Your task to perform on an android device: What is the speed of a rocket? Image 0: 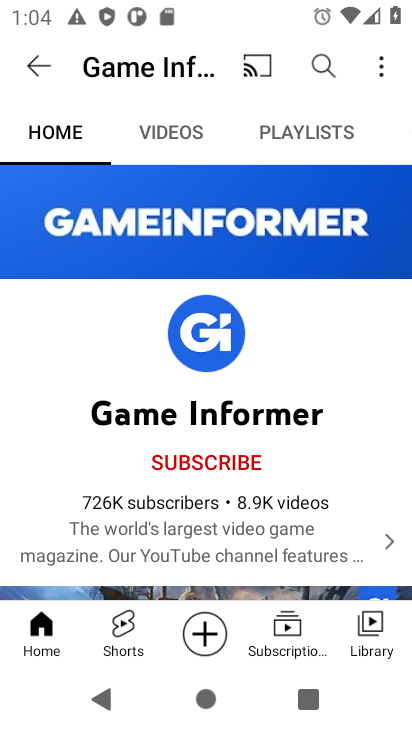
Step 0: press home button
Your task to perform on an android device: What is the speed of a rocket? Image 1: 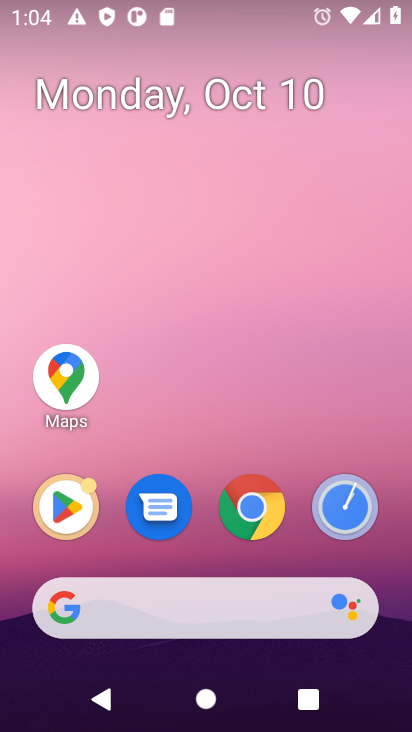
Step 1: click (239, 599)
Your task to perform on an android device: What is the speed of a rocket? Image 2: 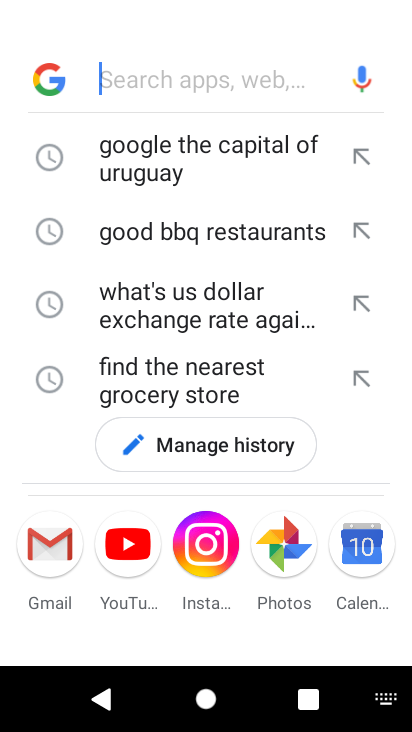
Step 2: type "What is the speed of a rocket?"
Your task to perform on an android device: What is the speed of a rocket? Image 3: 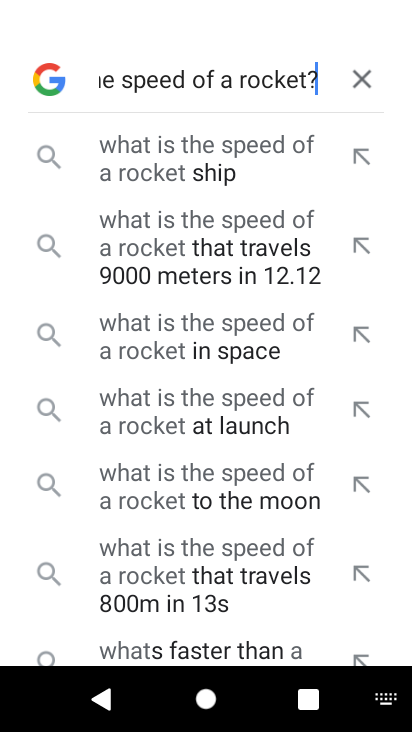
Step 3: press enter
Your task to perform on an android device: What is the speed of a rocket? Image 4: 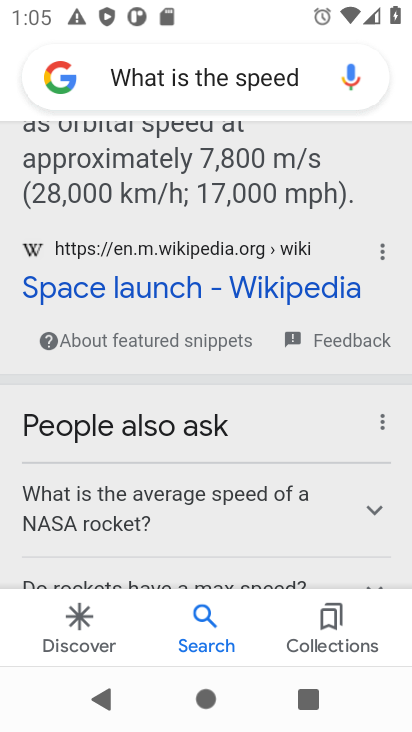
Step 4: task complete